Your task to perform on an android device: What's on my calendar tomorrow? Image 0: 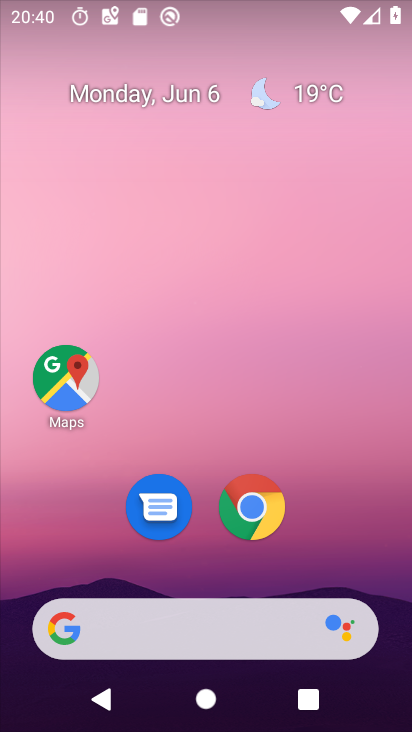
Step 0: press home button
Your task to perform on an android device: What's on my calendar tomorrow? Image 1: 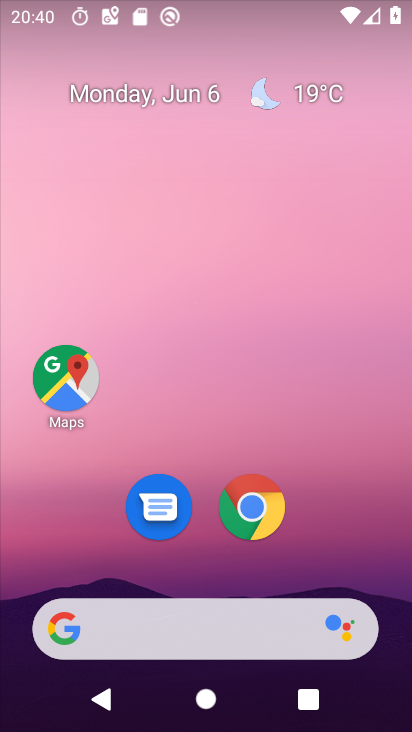
Step 1: drag from (376, 544) to (342, 10)
Your task to perform on an android device: What's on my calendar tomorrow? Image 2: 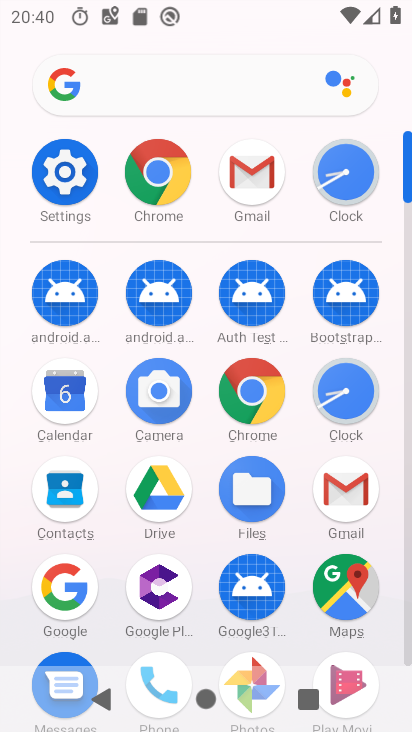
Step 2: click (60, 388)
Your task to perform on an android device: What's on my calendar tomorrow? Image 3: 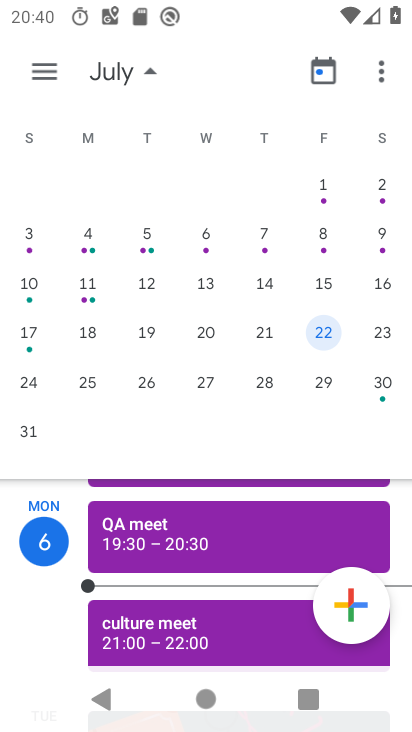
Step 3: drag from (50, 327) to (390, 209)
Your task to perform on an android device: What's on my calendar tomorrow? Image 4: 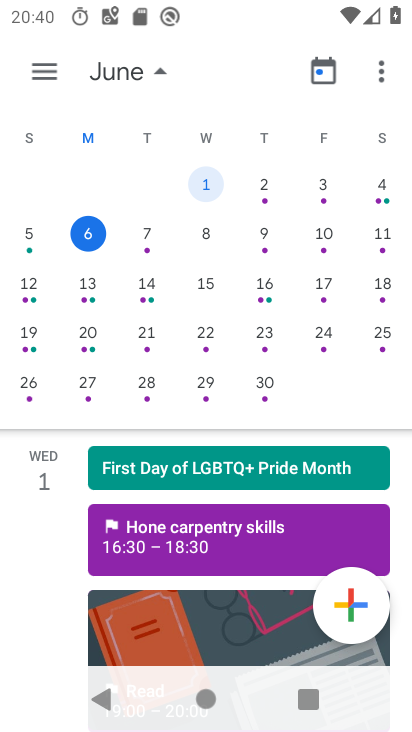
Step 4: click (210, 232)
Your task to perform on an android device: What's on my calendar tomorrow? Image 5: 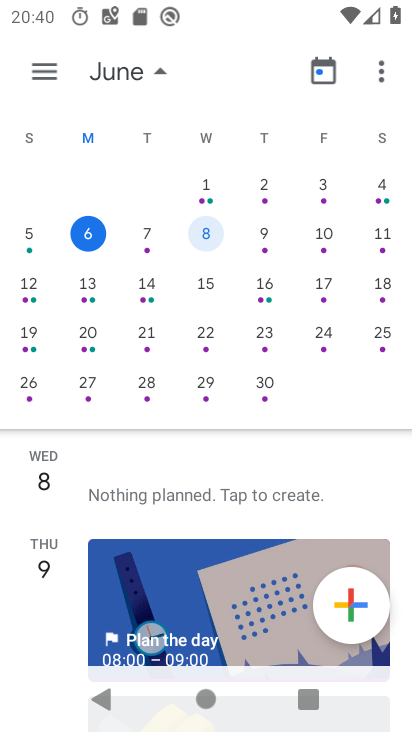
Step 5: click (150, 69)
Your task to perform on an android device: What's on my calendar tomorrow? Image 6: 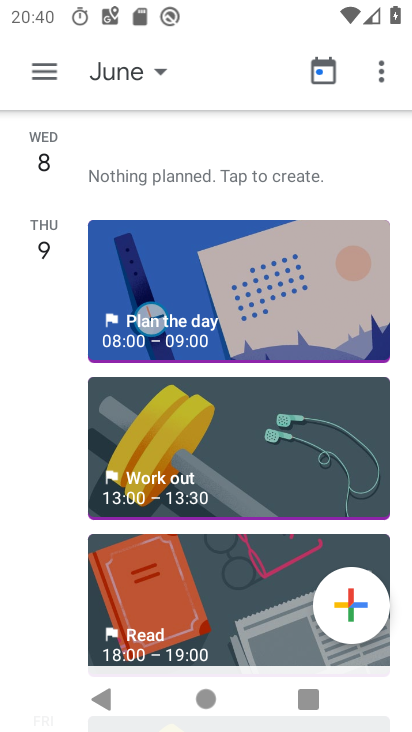
Step 6: task complete